Your task to perform on an android device: open app "Upside-Cash back on gas & food" (install if not already installed) Image 0: 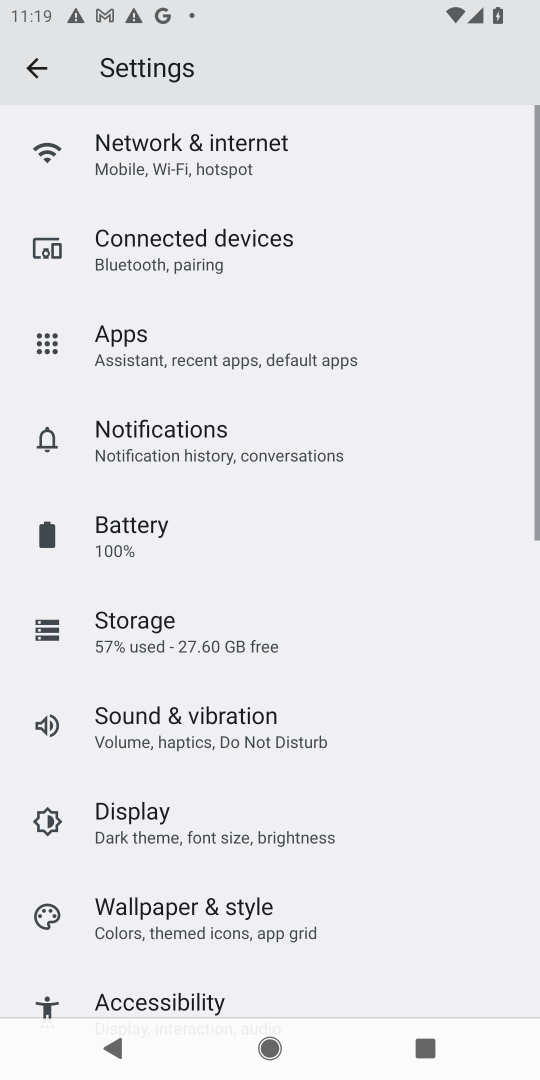
Step 0: press home button
Your task to perform on an android device: open app "Upside-Cash back on gas & food" (install if not already installed) Image 1: 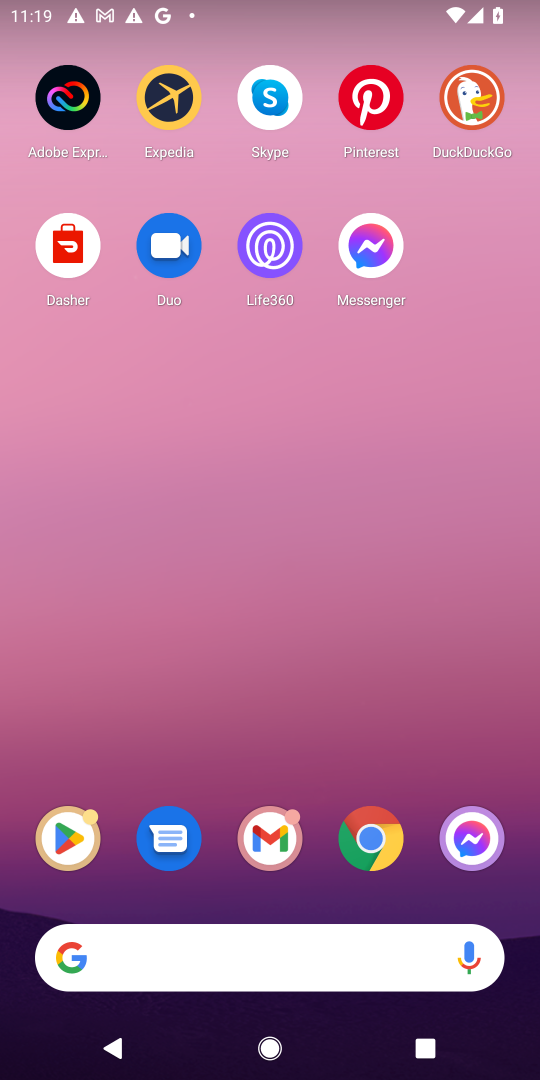
Step 1: drag from (425, 841) to (440, 239)
Your task to perform on an android device: open app "Upside-Cash back on gas & food" (install if not already installed) Image 2: 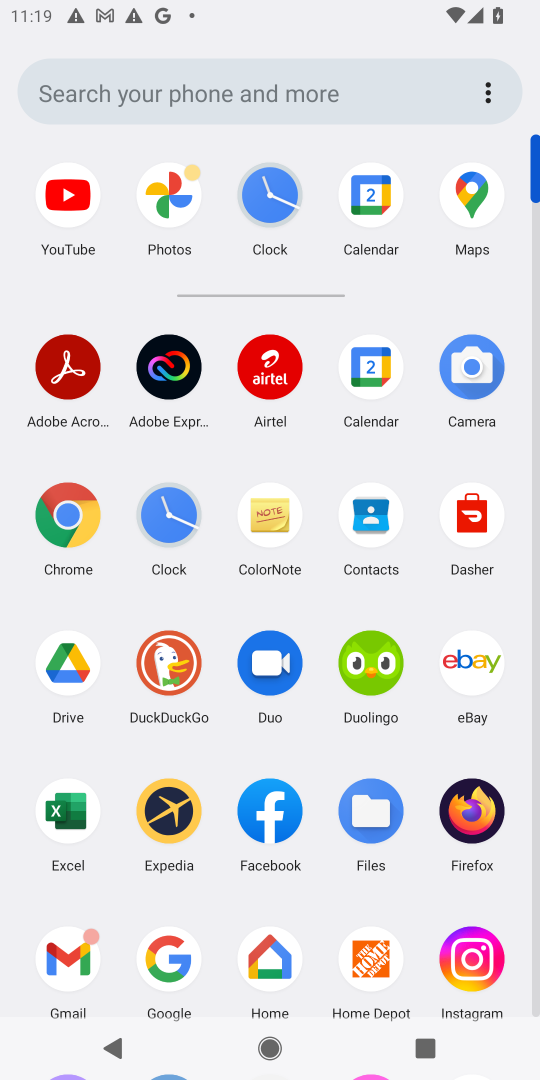
Step 2: drag from (420, 891) to (406, 555)
Your task to perform on an android device: open app "Upside-Cash back on gas & food" (install if not already installed) Image 3: 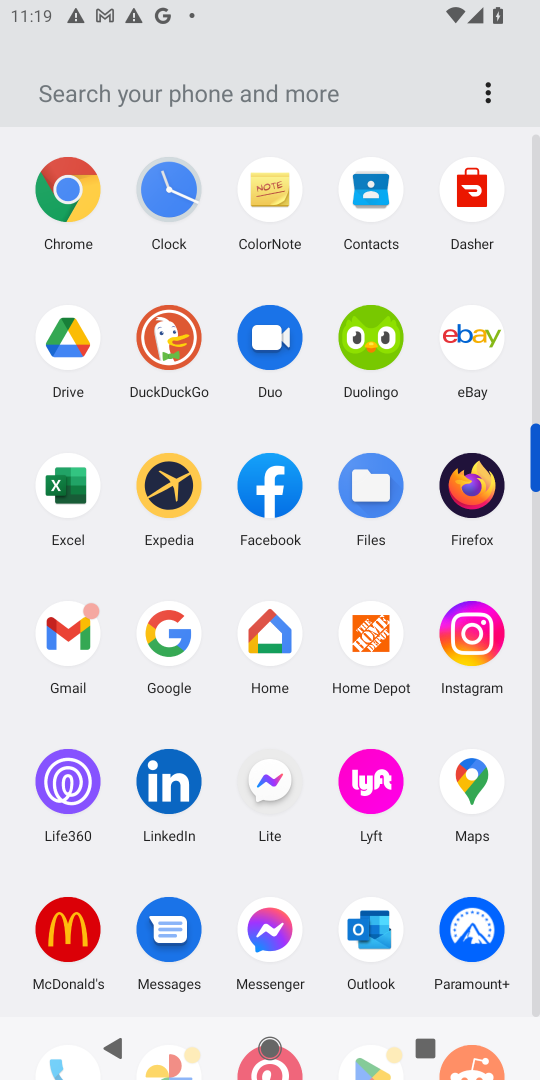
Step 3: drag from (418, 880) to (408, 632)
Your task to perform on an android device: open app "Upside-Cash back on gas & food" (install if not already installed) Image 4: 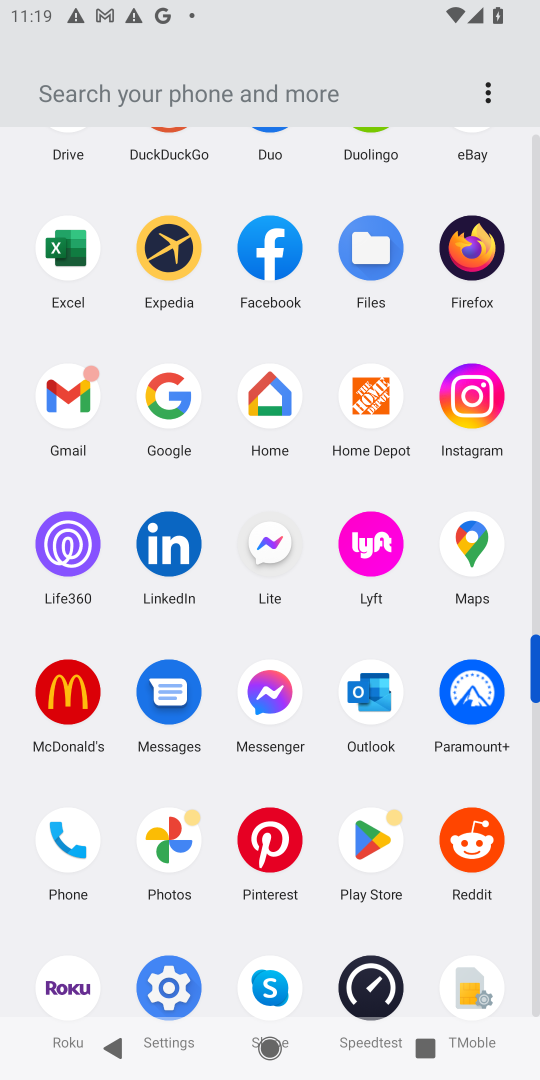
Step 4: click (371, 845)
Your task to perform on an android device: open app "Upside-Cash back on gas & food" (install if not already installed) Image 5: 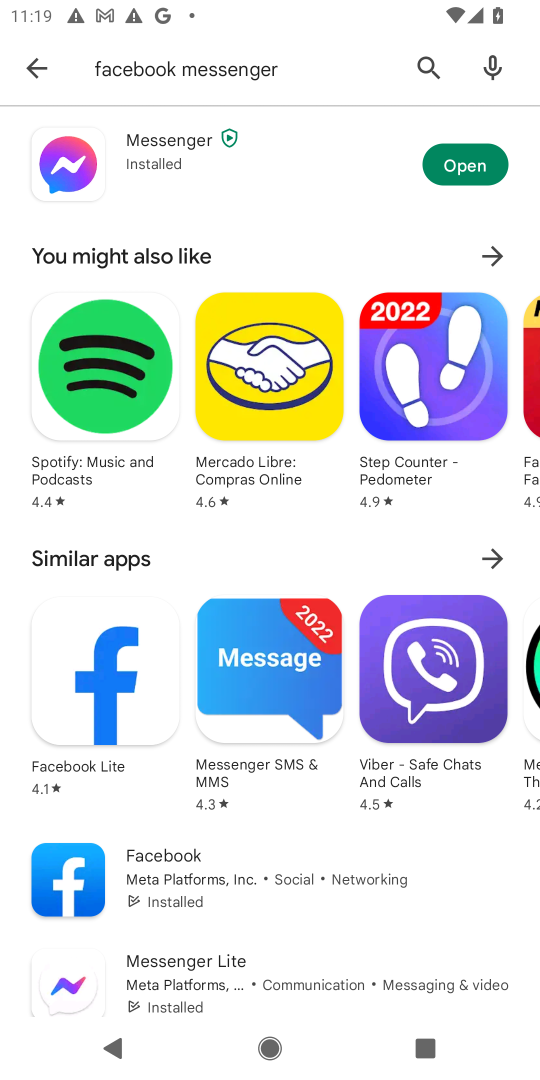
Step 5: click (423, 69)
Your task to perform on an android device: open app "Upside-Cash back on gas & food" (install if not already installed) Image 6: 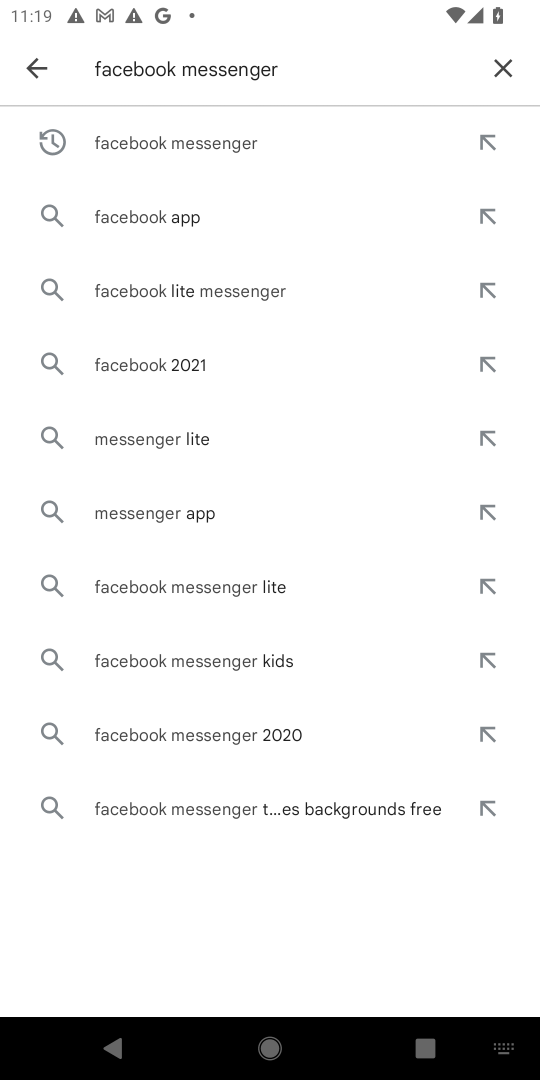
Step 6: click (501, 75)
Your task to perform on an android device: open app "Upside-Cash back on gas & food" (install if not already installed) Image 7: 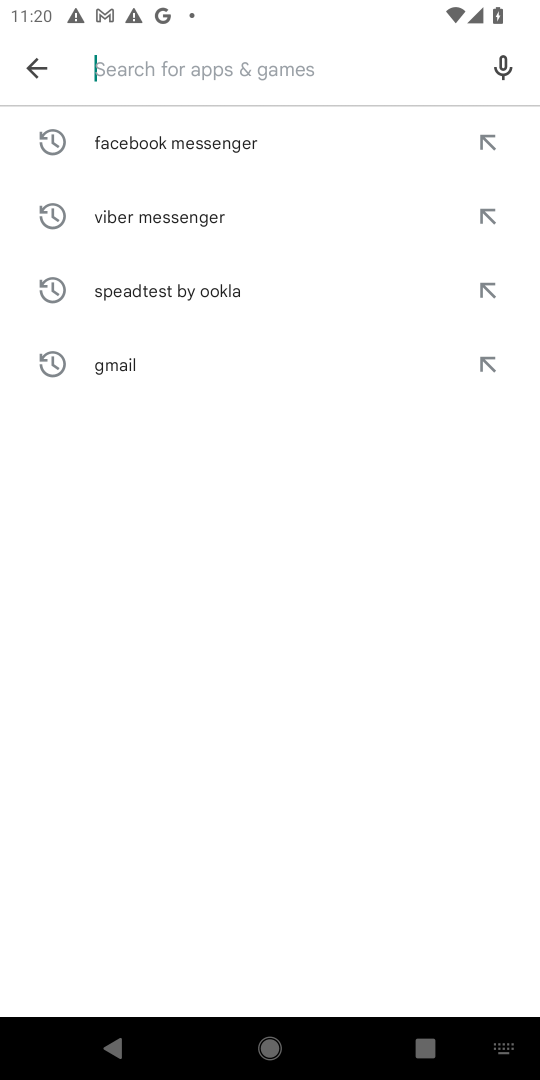
Step 7: type "upside cash back on gas food"
Your task to perform on an android device: open app "Upside-Cash back on gas & food" (install if not already installed) Image 8: 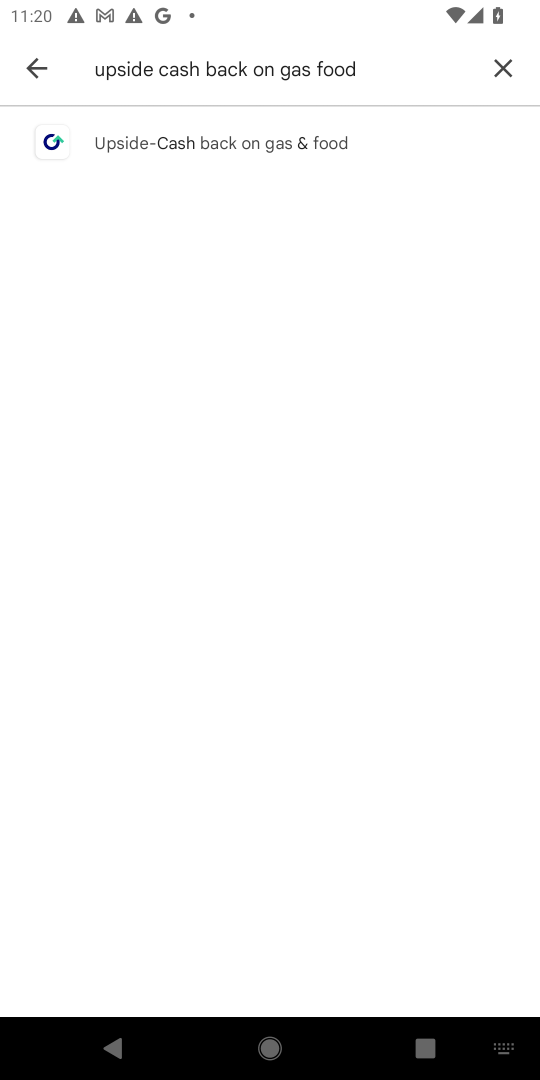
Step 8: click (262, 150)
Your task to perform on an android device: open app "Upside-Cash back on gas & food" (install if not already installed) Image 9: 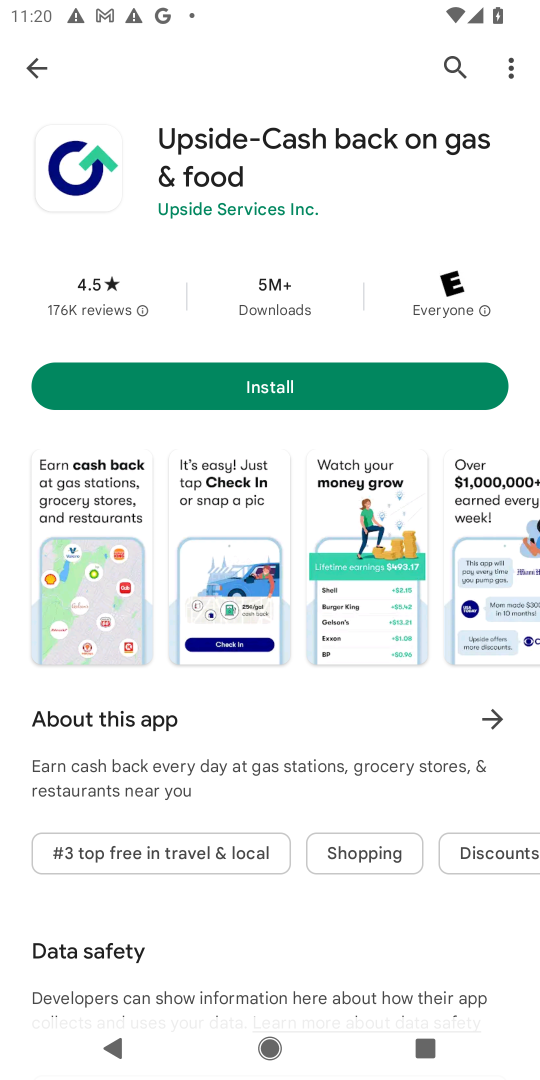
Step 9: click (289, 390)
Your task to perform on an android device: open app "Upside-Cash back on gas & food" (install if not already installed) Image 10: 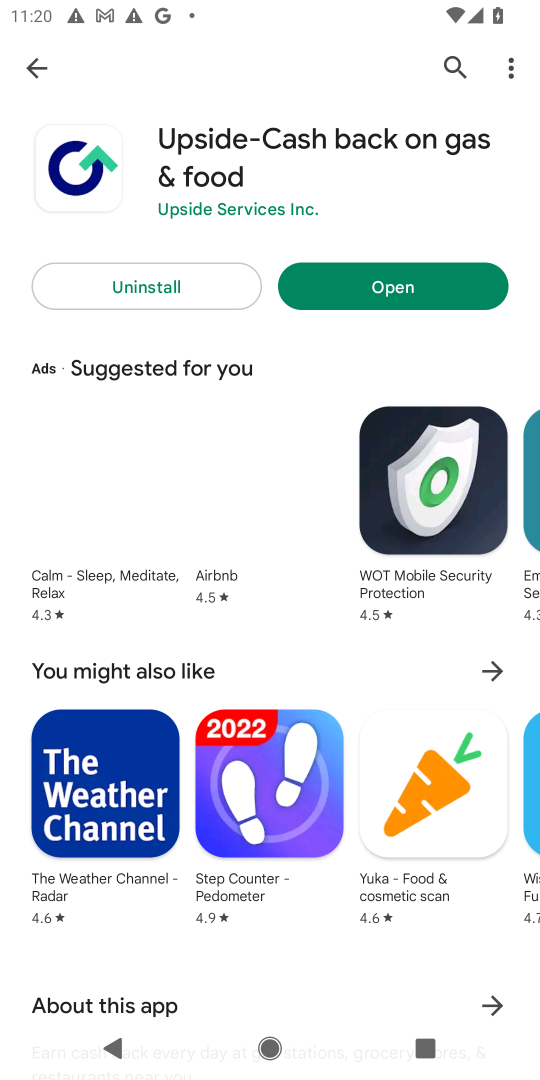
Step 10: click (438, 282)
Your task to perform on an android device: open app "Upside-Cash back on gas & food" (install if not already installed) Image 11: 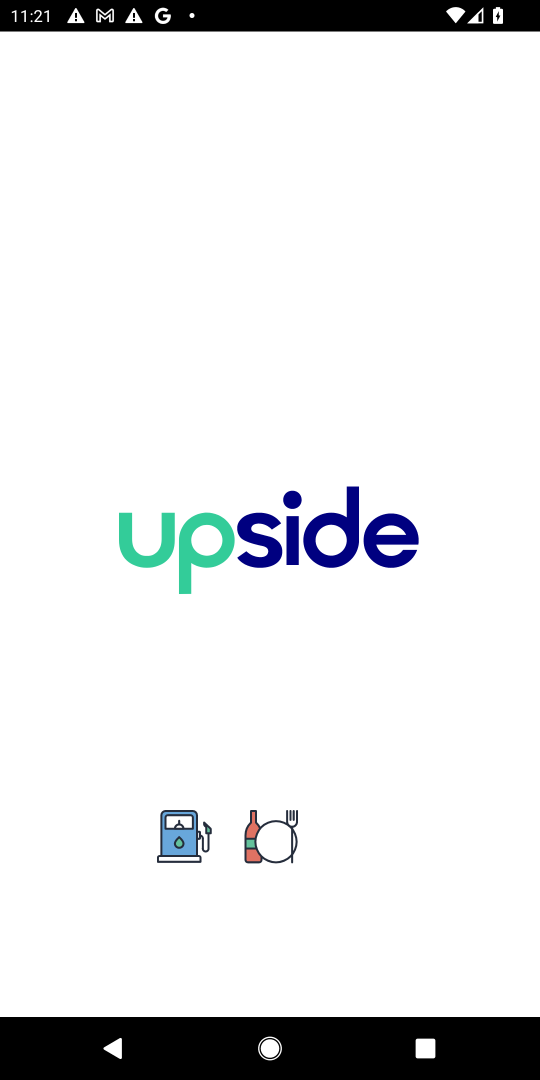
Step 11: task complete